Your task to perform on an android device: turn smart compose on in the gmail app Image 0: 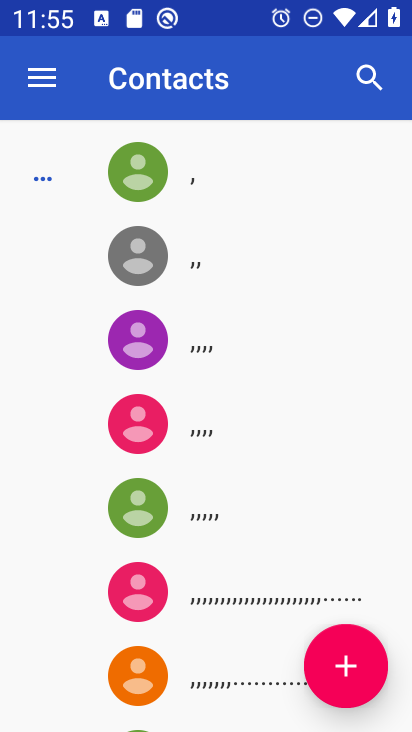
Step 0: press home button
Your task to perform on an android device: turn smart compose on in the gmail app Image 1: 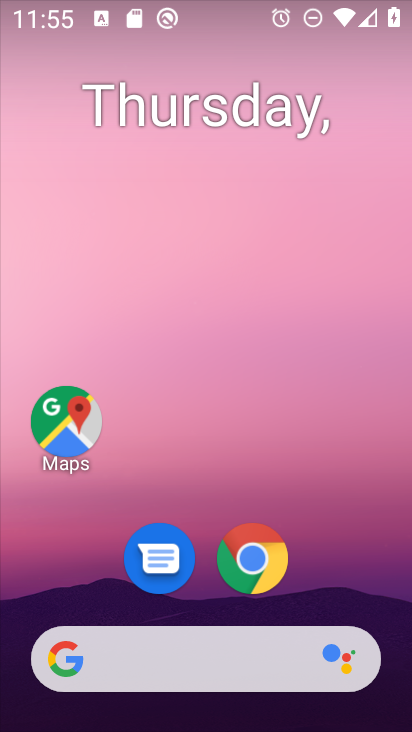
Step 1: drag from (374, 607) to (337, 131)
Your task to perform on an android device: turn smart compose on in the gmail app Image 2: 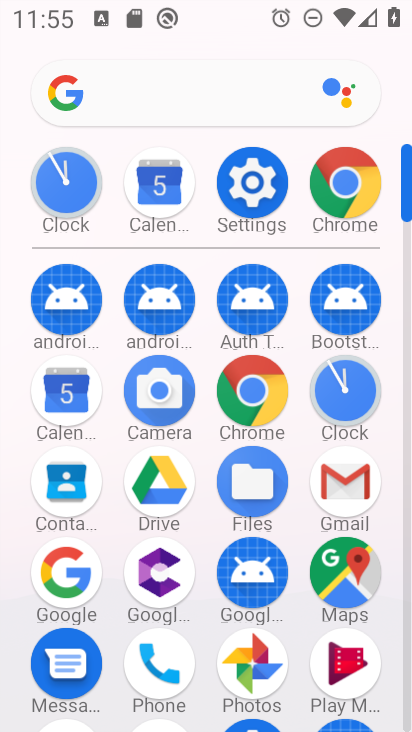
Step 2: click (340, 483)
Your task to perform on an android device: turn smart compose on in the gmail app Image 3: 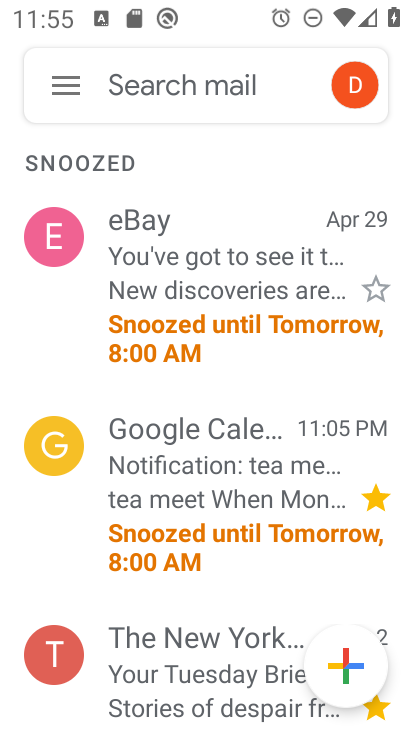
Step 3: click (63, 83)
Your task to perform on an android device: turn smart compose on in the gmail app Image 4: 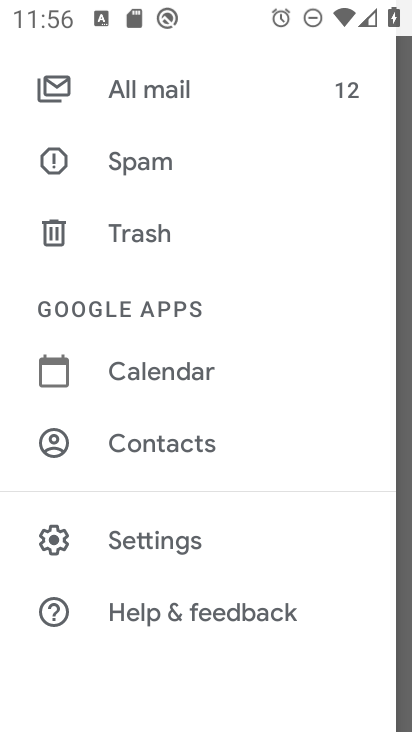
Step 4: click (153, 542)
Your task to perform on an android device: turn smart compose on in the gmail app Image 5: 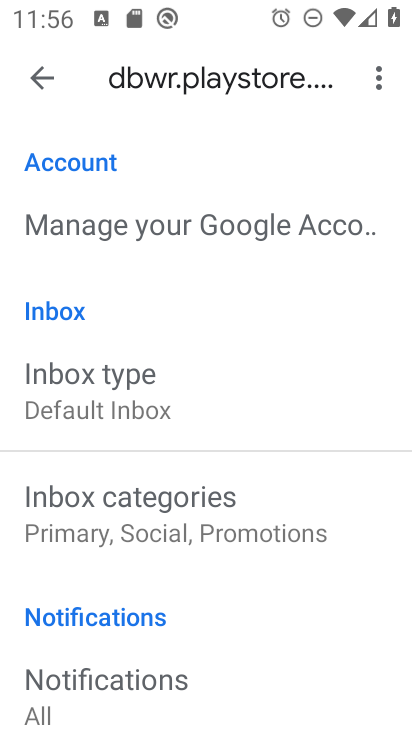
Step 5: task complete